Your task to perform on an android device: Go to privacy settings Image 0: 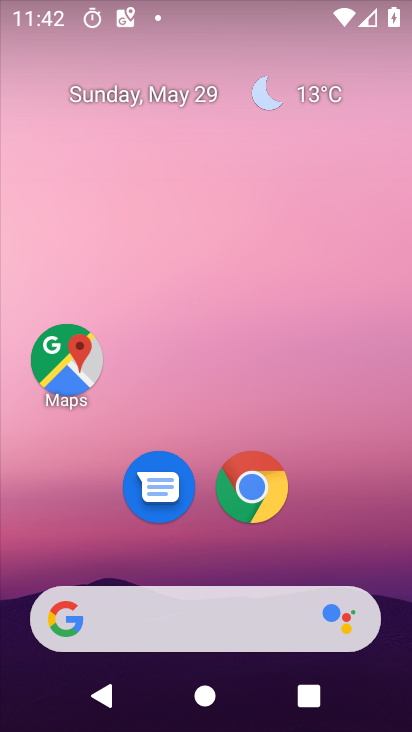
Step 0: click (256, 490)
Your task to perform on an android device: Go to privacy settings Image 1: 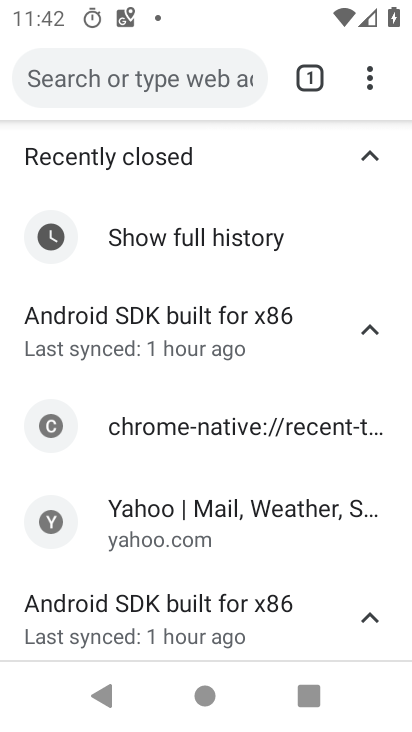
Step 1: click (360, 70)
Your task to perform on an android device: Go to privacy settings Image 2: 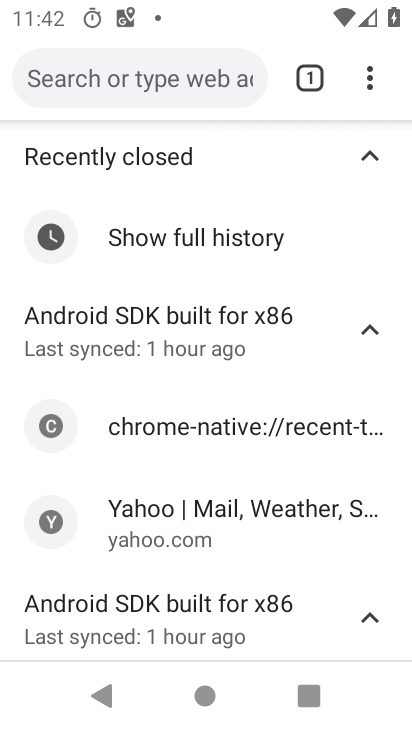
Step 2: click (371, 79)
Your task to perform on an android device: Go to privacy settings Image 3: 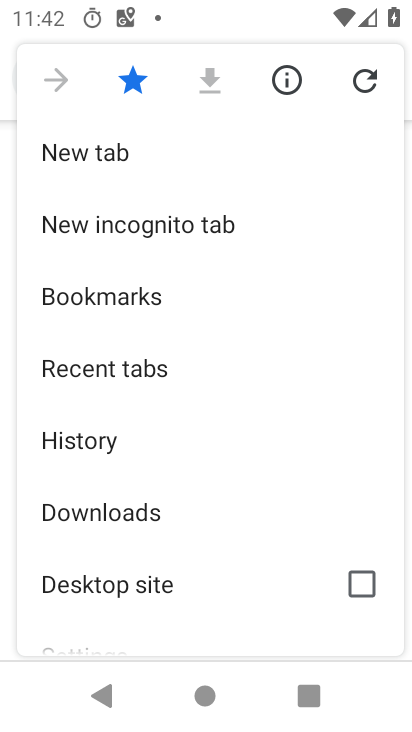
Step 3: drag from (212, 591) to (238, 217)
Your task to perform on an android device: Go to privacy settings Image 4: 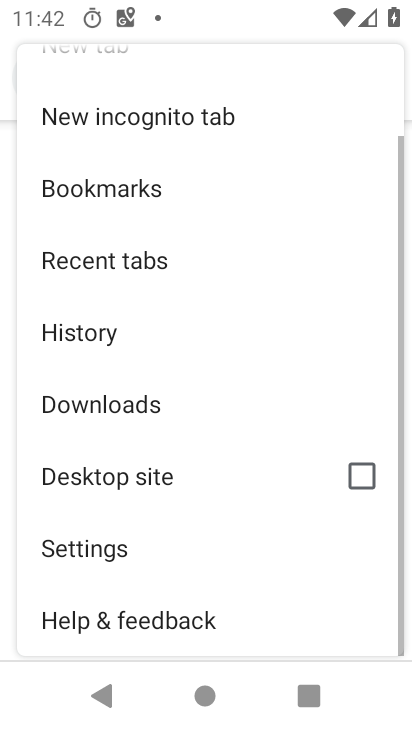
Step 4: click (112, 556)
Your task to perform on an android device: Go to privacy settings Image 5: 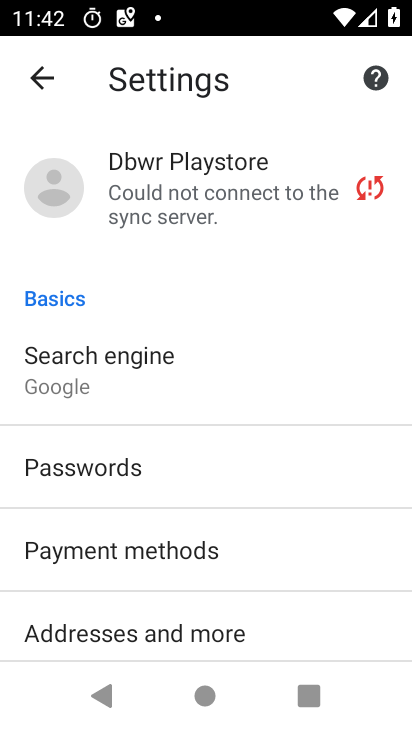
Step 5: drag from (292, 638) to (247, 104)
Your task to perform on an android device: Go to privacy settings Image 6: 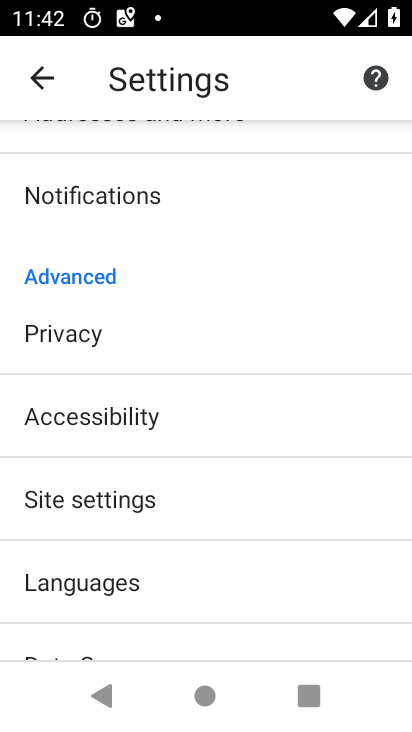
Step 6: click (68, 336)
Your task to perform on an android device: Go to privacy settings Image 7: 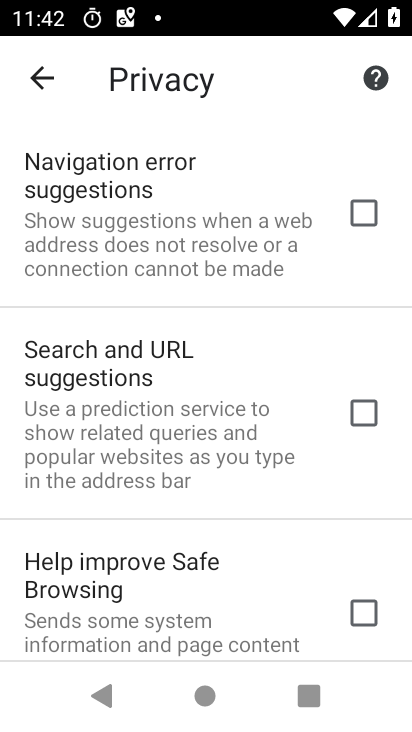
Step 7: task complete